Your task to perform on an android device: turn smart compose on in the gmail app Image 0: 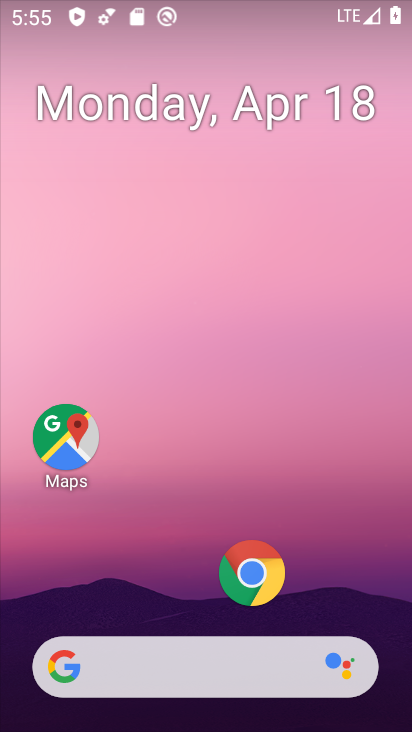
Step 0: drag from (172, 617) to (287, 18)
Your task to perform on an android device: turn smart compose on in the gmail app Image 1: 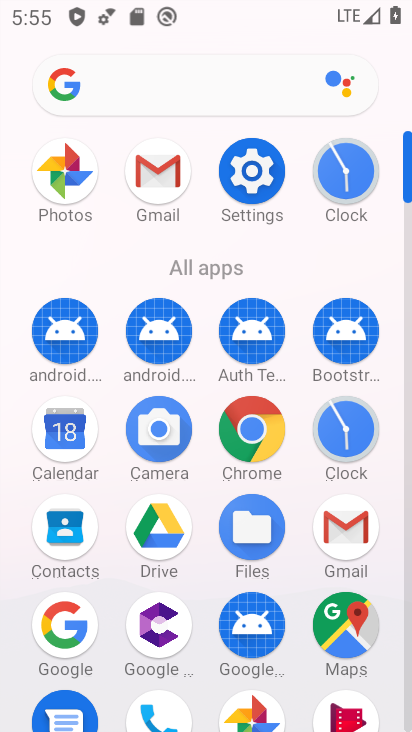
Step 1: click (348, 539)
Your task to perform on an android device: turn smart compose on in the gmail app Image 2: 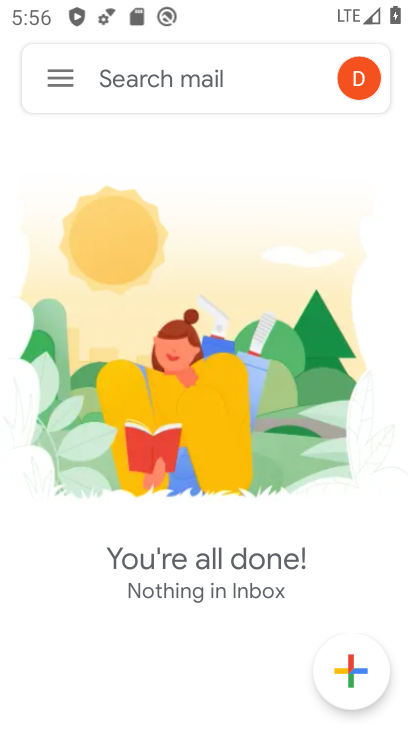
Step 2: click (58, 85)
Your task to perform on an android device: turn smart compose on in the gmail app Image 3: 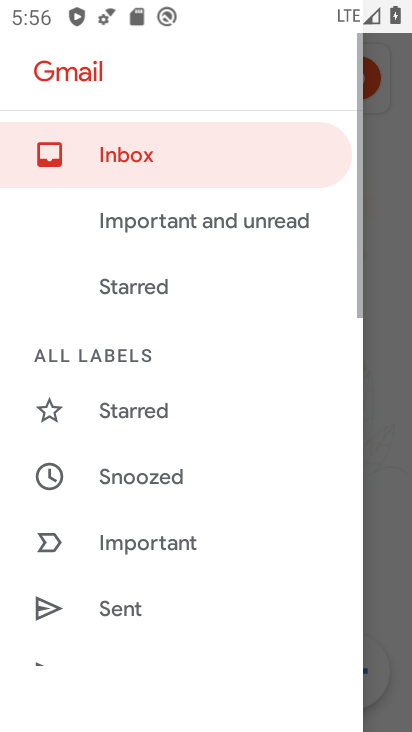
Step 3: drag from (101, 602) to (259, 8)
Your task to perform on an android device: turn smart compose on in the gmail app Image 4: 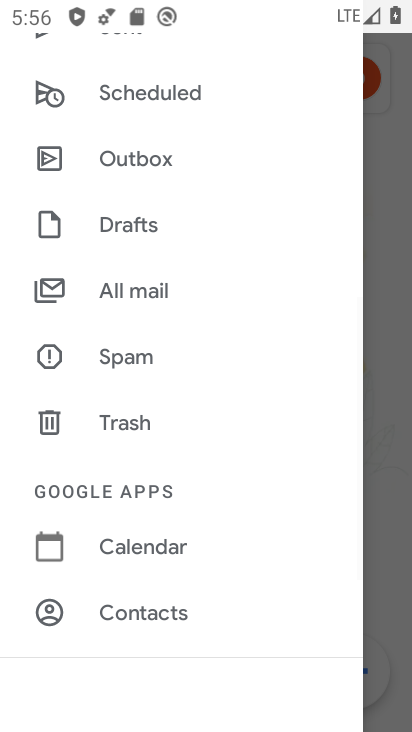
Step 4: drag from (135, 603) to (256, 39)
Your task to perform on an android device: turn smart compose on in the gmail app Image 5: 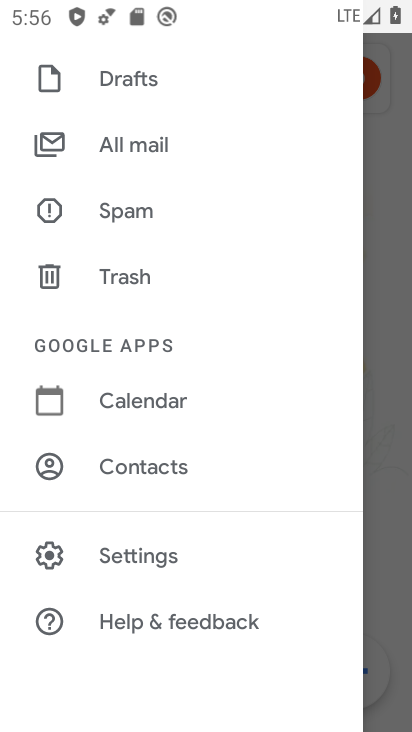
Step 5: click (137, 567)
Your task to perform on an android device: turn smart compose on in the gmail app Image 6: 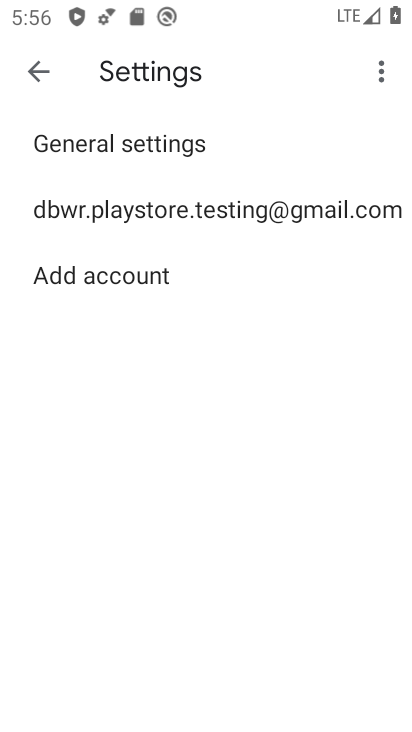
Step 6: click (206, 213)
Your task to perform on an android device: turn smart compose on in the gmail app Image 7: 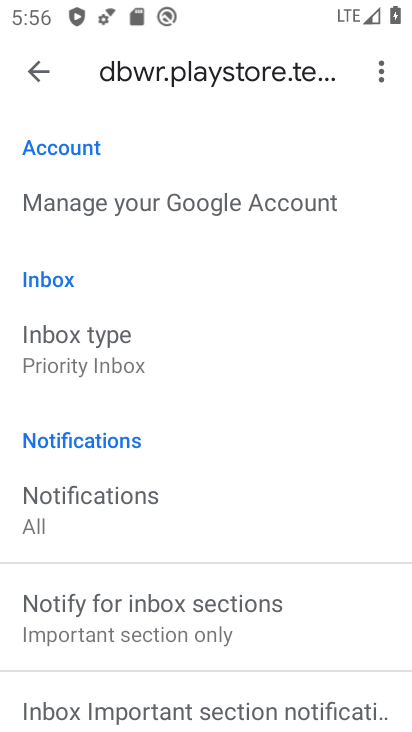
Step 7: task complete